Your task to perform on an android device: What is the news today? Image 0: 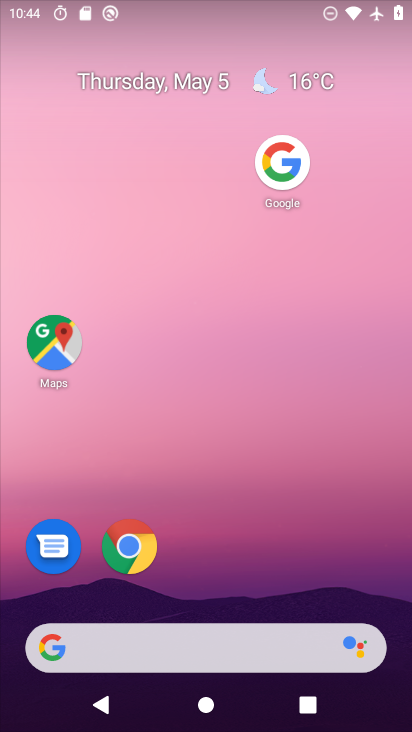
Step 0: drag from (50, 224) to (372, 275)
Your task to perform on an android device: What is the news today? Image 1: 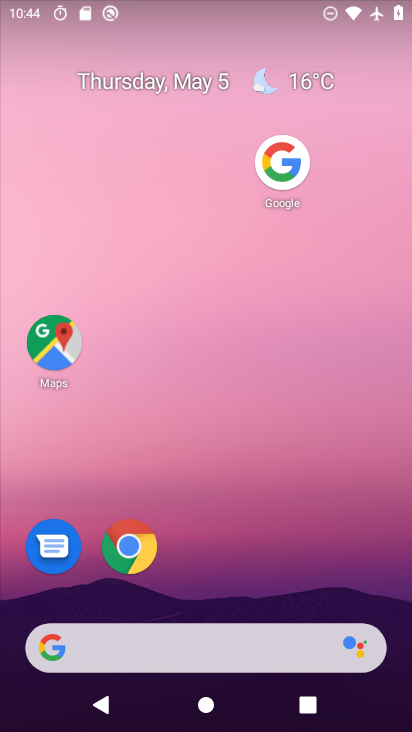
Step 1: task complete